Your task to perform on an android device: Go to Yahoo.com Image 0: 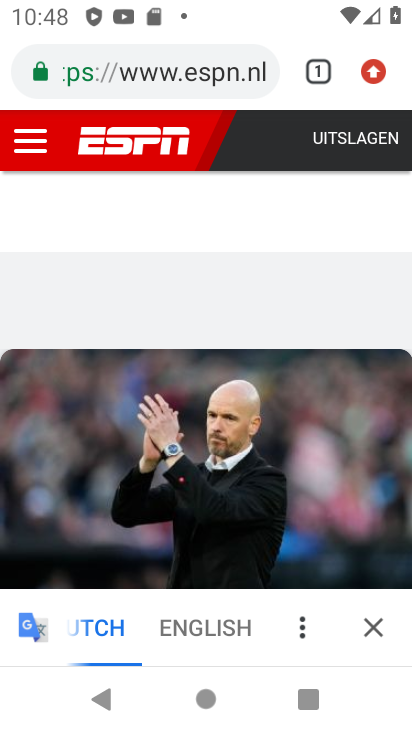
Step 0: press back button
Your task to perform on an android device: Go to Yahoo.com Image 1: 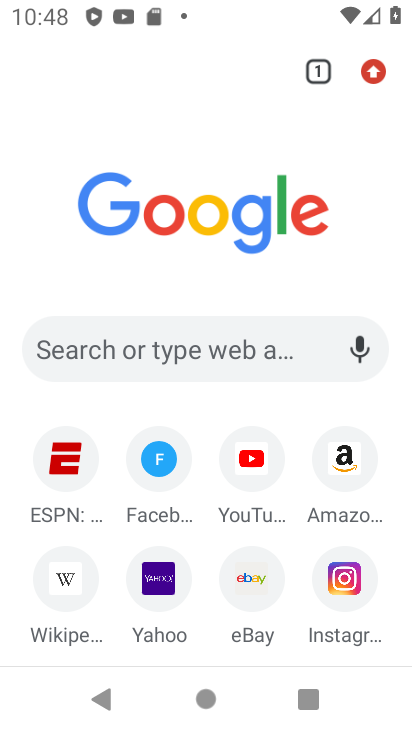
Step 1: click (155, 578)
Your task to perform on an android device: Go to Yahoo.com Image 2: 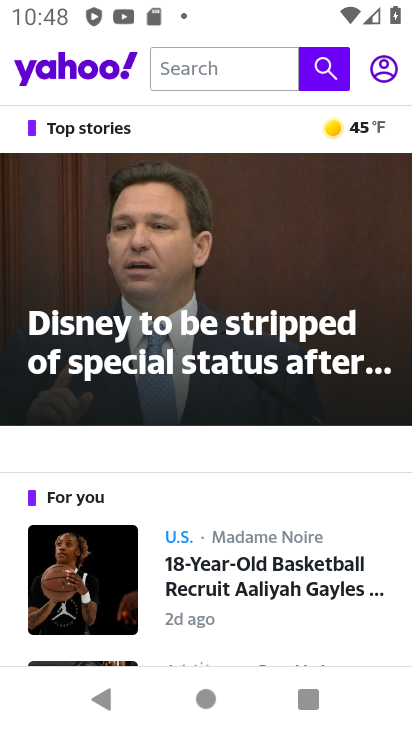
Step 2: task complete